Your task to perform on an android device: Open my contact list Image 0: 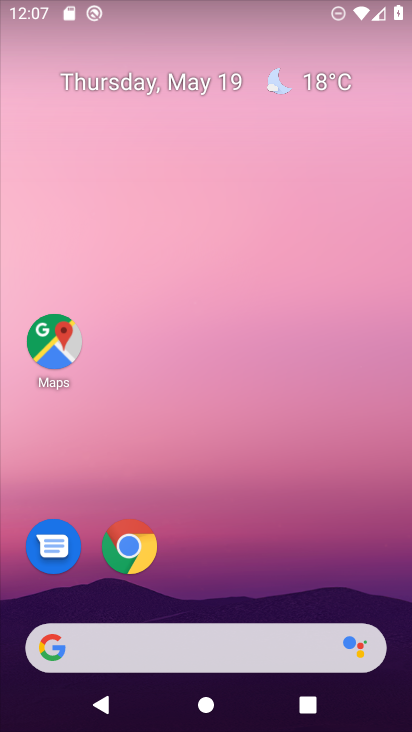
Step 0: drag from (239, 726) to (238, 211)
Your task to perform on an android device: Open my contact list Image 1: 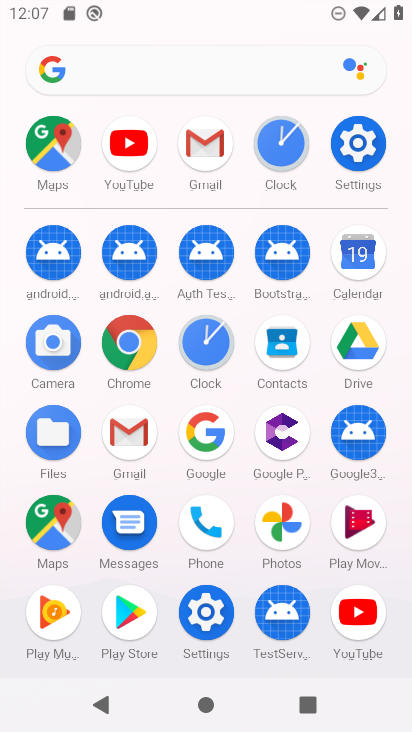
Step 1: click (275, 344)
Your task to perform on an android device: Open my contact list Image 2: 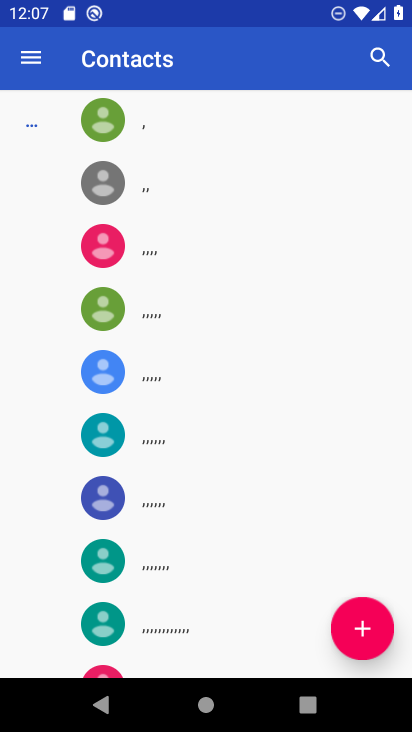
Step 2: task complete